Your task to perform on an android device: toggle improve location accuracy Image 0: 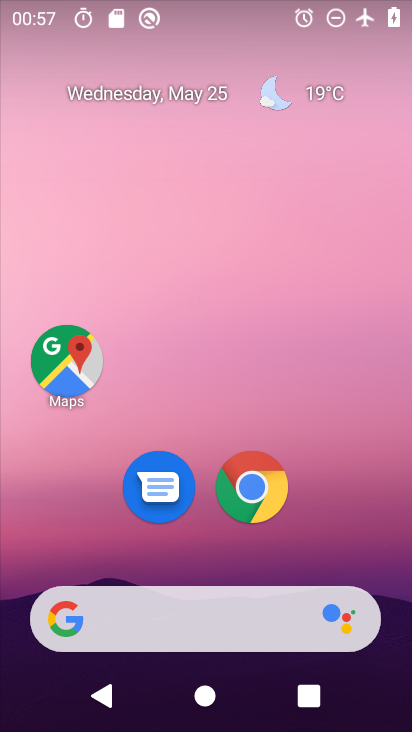
Step 0: drag from (363, 574) to (340, 13)
Your task to perform on an android device: toggle improve location accuracy Image 1: 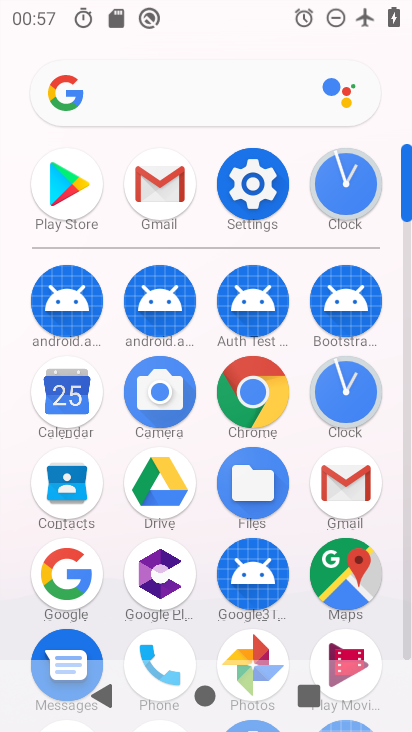
Step 1: click (260, 184)
Your task to perform on an android device: toggle improve location accuracy Image 2: 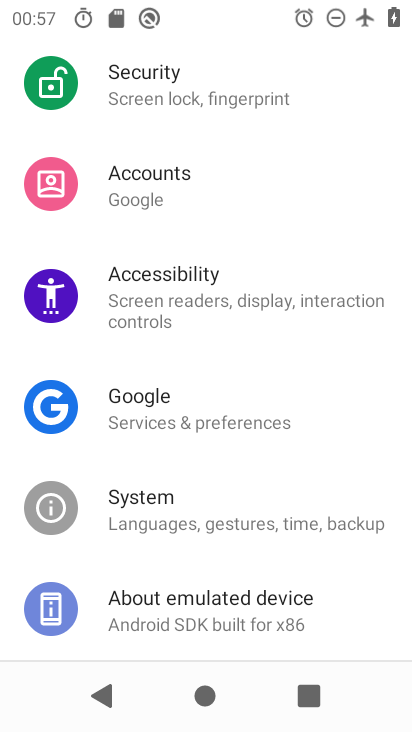
Step 2: drag from (213, 221) to (213, 508)
Your task to perform on an android device: toggle improve location accuracy Image 3: 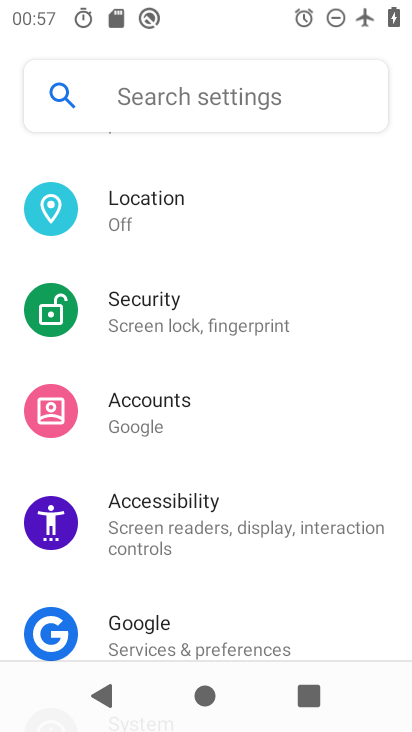
Step 3: click (127, 208)
Your task to perform on an android device: toggle improve location accuracy Image 4: 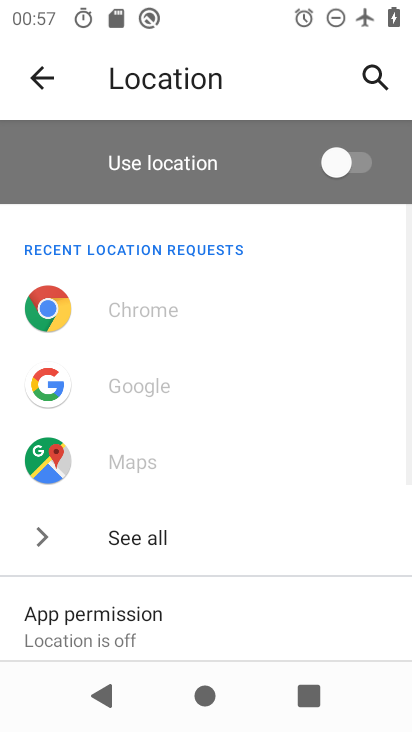
Step 4: drag from (200, 511) to (203, 139)
Your task to perform on an android device: toggle improve location accuracy Image 5: 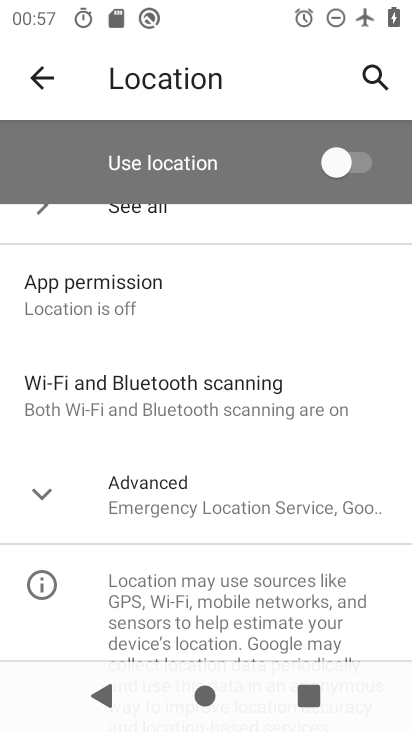
Step 5: click (32, 500)
Your task to perform on an android device: toggle improve location accuracy Image 6: 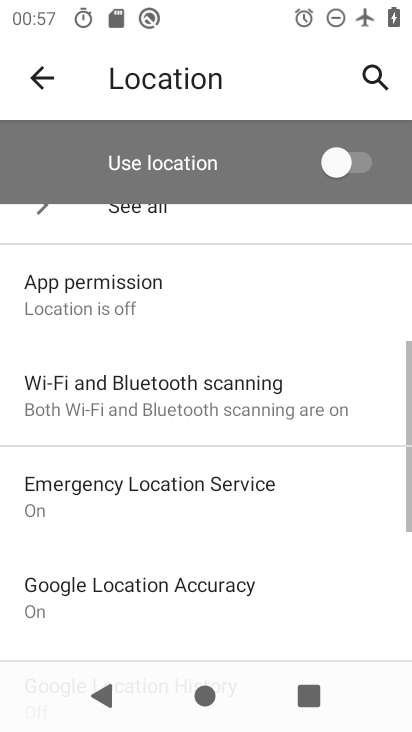
Step 6: drag from (164, 512) to (166, 279)
Your task to perform on an android device: toggle improve location accuracy Image 7: 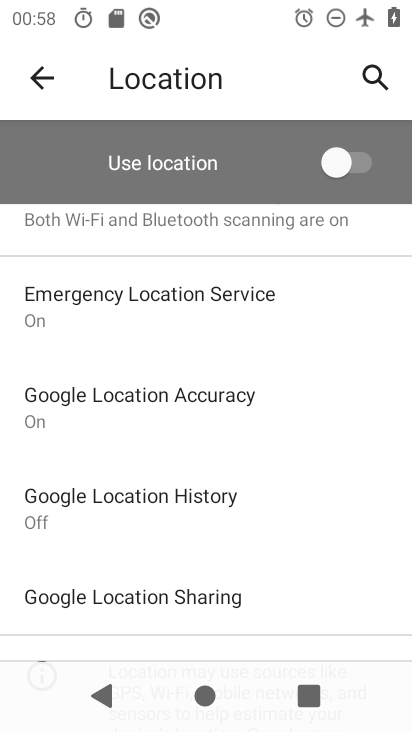
Step 7: click (101, 407)
Your task to perform on an android device: toggle improve location accuracy Image 8: 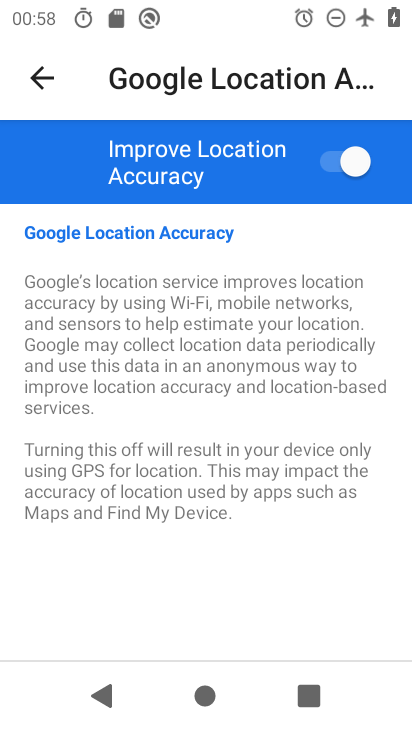
Step 8: click (358, 171)
Your task to perform on an android device: toggle improve location accuracy Image 9: 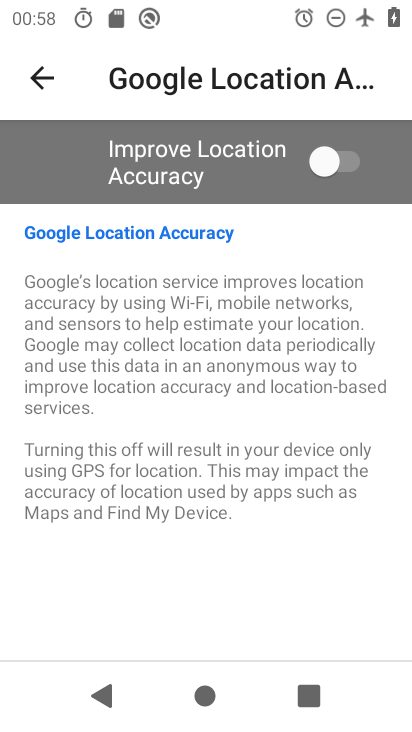
Step 9: task complete